Your task to perform on an android device: toggle airplane mode Image 0: 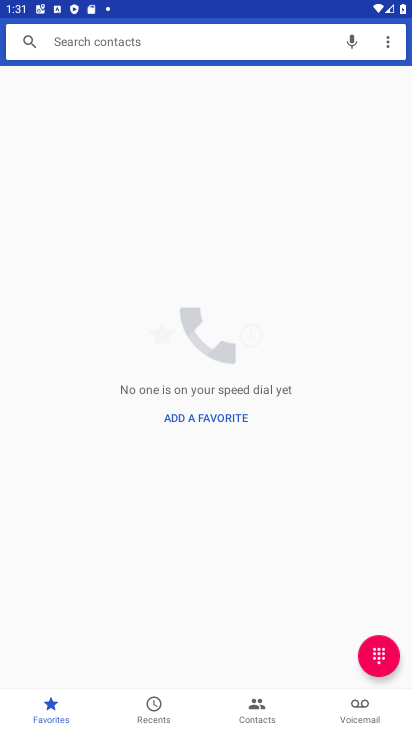
Step 0: press home button
Your task to perform on an android device: toggle airplane mode Image 1: 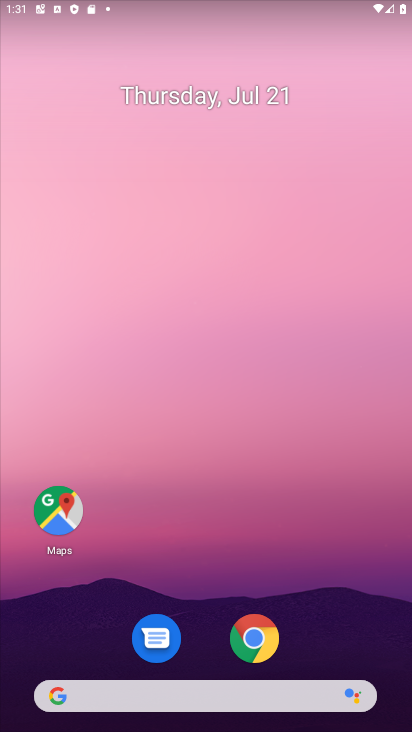
Step 1: drag from (270, 512) to (191, 106)
Your task to perform on an android device: toggle airplane mode Image 2: 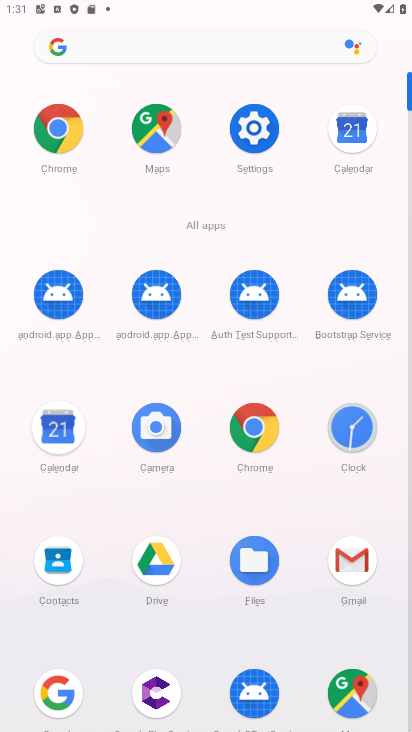
Step 2: click (247, 136)
Your task to perform on an android device: toggle airplane mode Image 3: 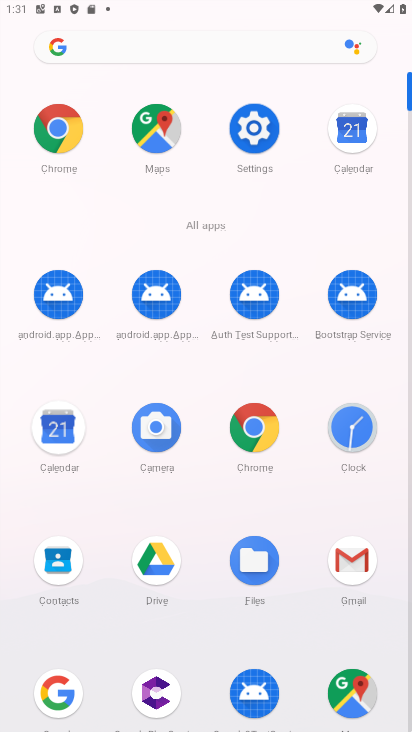
Step 3: click (247, 136)
Your task to perform on an android device: toggle airplane mode Image 4: 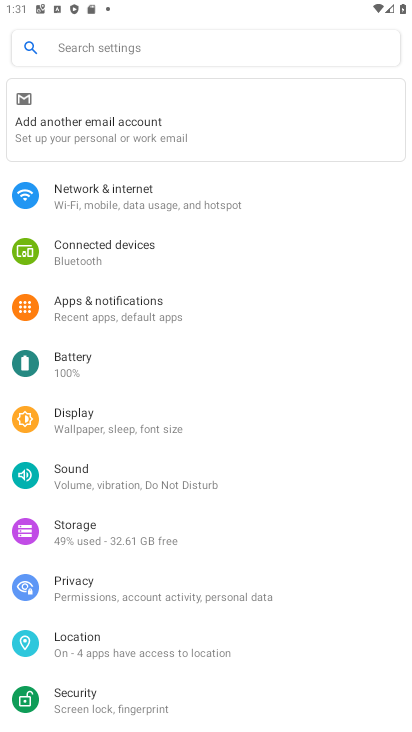
Step 4: click (162, 202)
Your task to perform on an android device: toggle airplane mode Image 5: 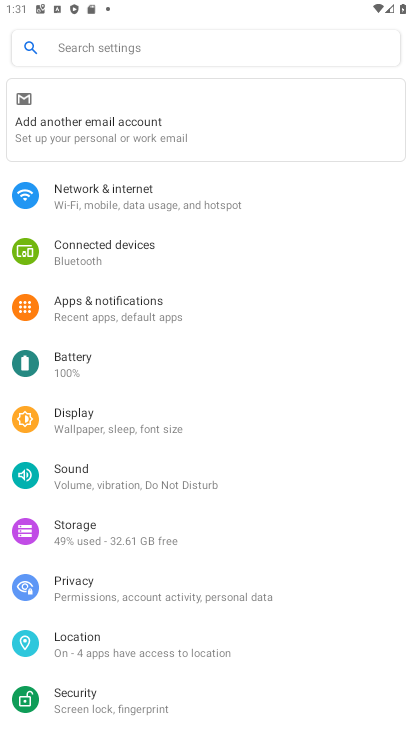
Step 5: click (162, 202)
Your task to perform on an android device: toggle airplane mode Image 6: 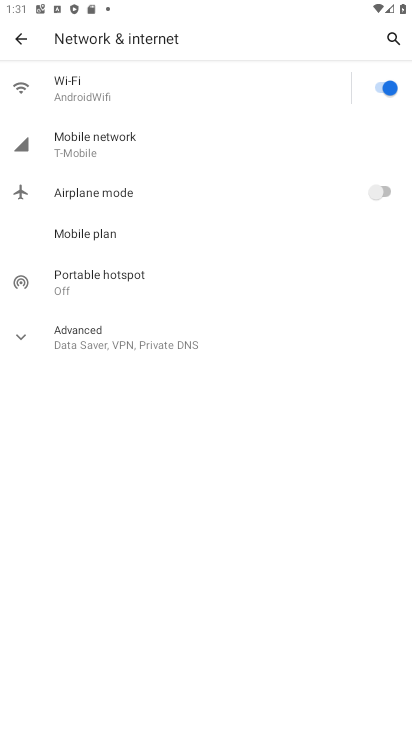
Step 6: click (381, 187)
Your task to perform on an android device: toggle airplane mode Image 7: 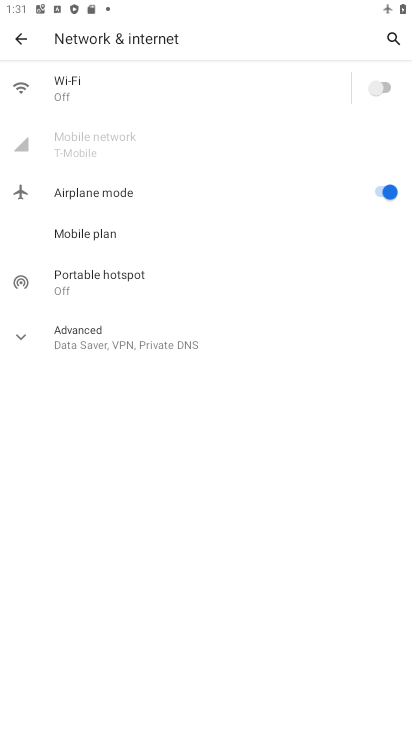
Step 7: task complete